Your task to perform on an android device: see sites visited before in the chrome app Image 0: 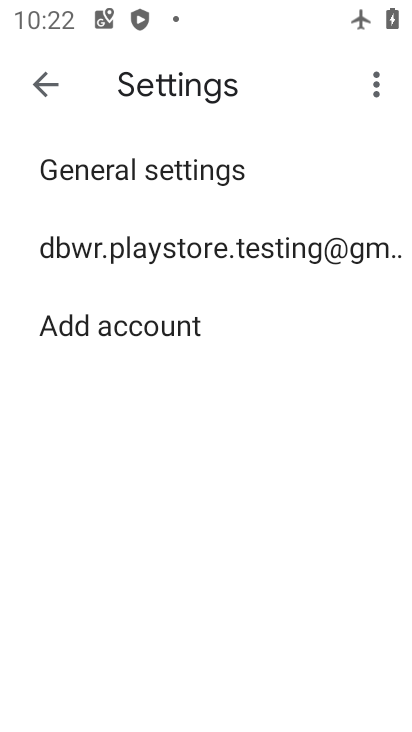
Step 0: click (224, 251)
Your task to perform on an android device: see sites visited before in the chrome app Image 1: 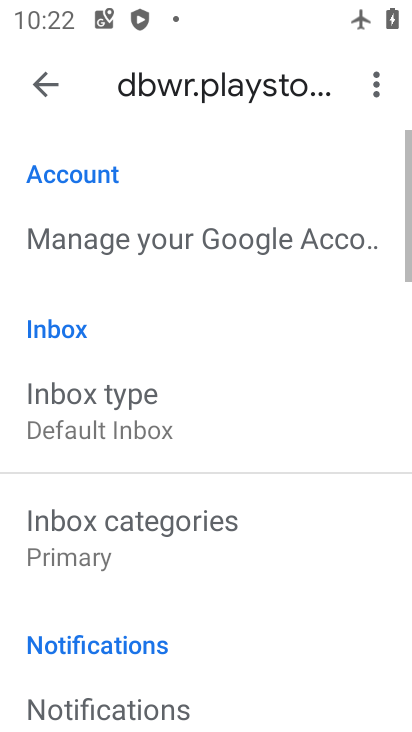
Step 1: press home button
Your task to perform on an android device: see sites visited before in the chrome app Image 2: 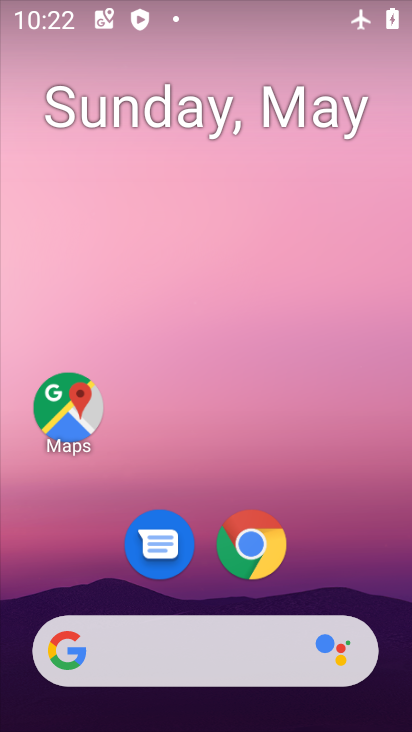
Step 2: click (276, 547)
Your task to perform on an android device: see sites visited before in the chrome app Image 3: 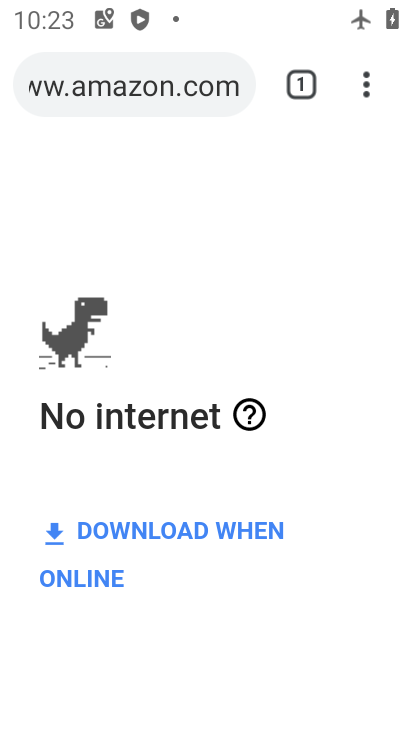
Step 3: click (359, 97)
Your task to perform on an android device: see sites visited before in the chrome app Image 4: 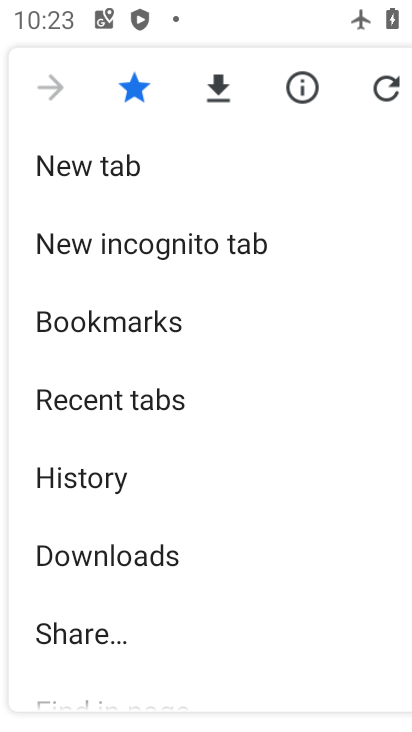
Step 4: drag from (205, 608) to (260, 235)
Your task to perform on an android device: see sites visited before in the chrome app Image 5: 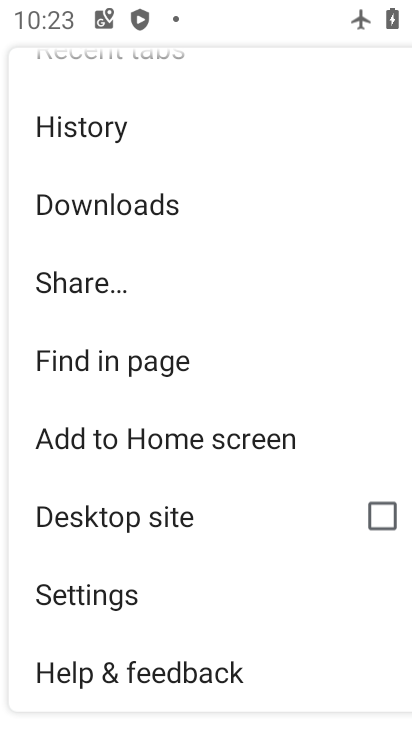
Step 5: click (105, 138)
Your task to perform on an android device: see sites visited before in the chrome app Image 6: 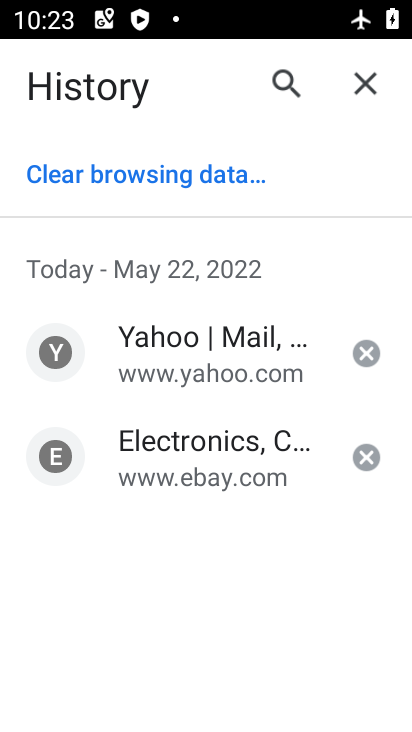
Step 6: task complete